Your task to perform on an android device: allow cookies in the chrome app Image 0: 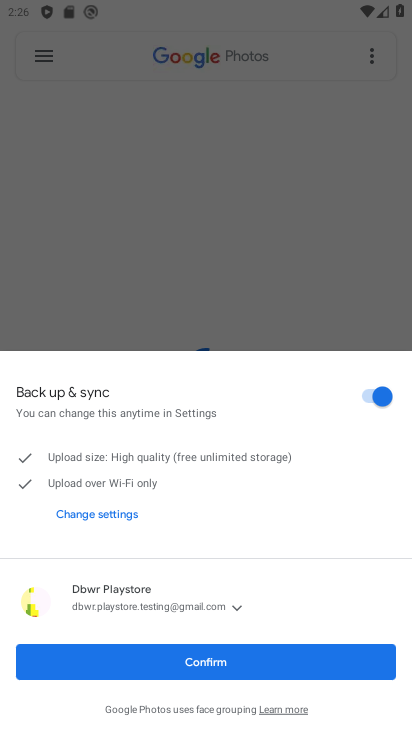
Step 0: press home button
Your task to perform on an android device: allow cookies in the chrome app Image 1: 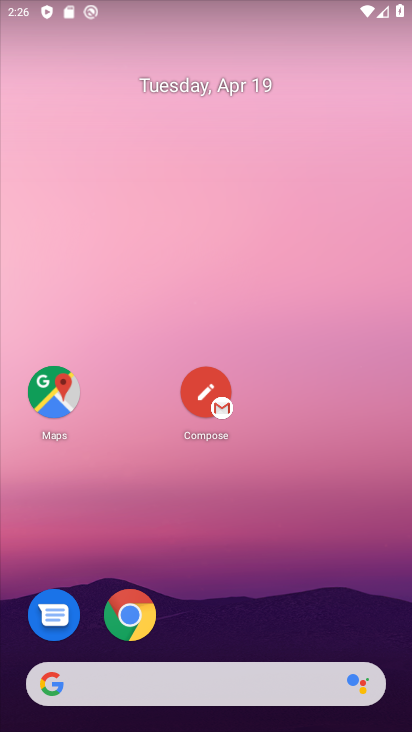
Step 1: drag from (253, 458) to (319, 71)
Your task to perform on an android device: allow cookies in the chrome app Image 2: 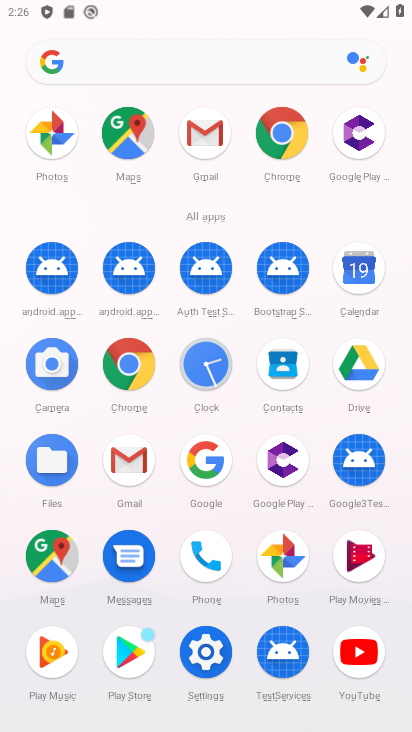
Step 2: click (133, 374)
Your task to perform on an android device: allow cookies in the chrome app Image 3: 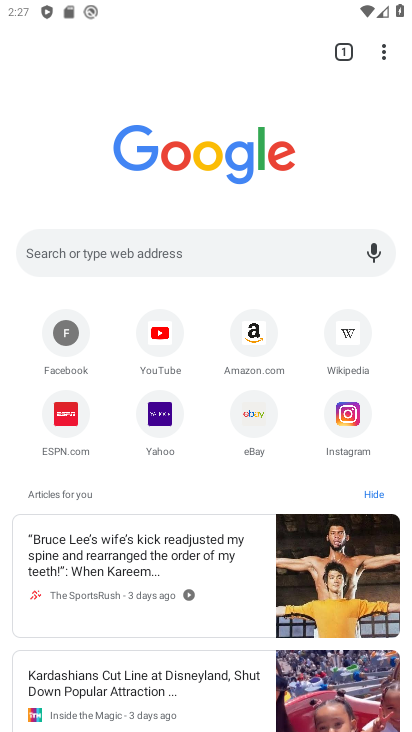
Step 3: click (376, 51)
Your task to perform on an android device: allow cookies in the chrome app Image 4: 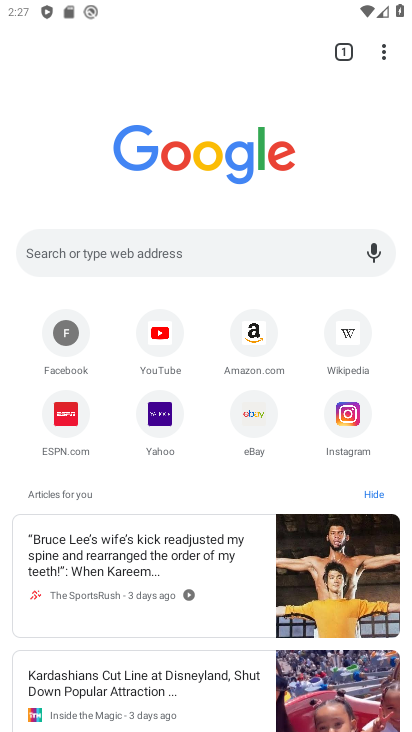
Step 4: click (370, 48)
Your task to perform on an android device: allow cookies in the chrome app Image 5: 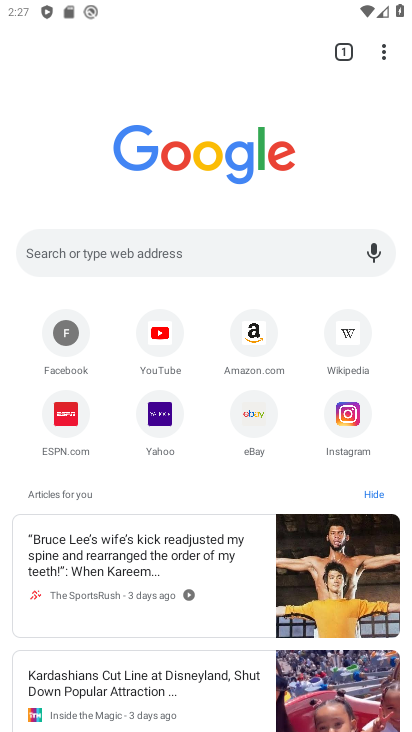
Step 5: click (378, 57)
Your task to perform on an android device: allow cookies in the chrome app Image 6: 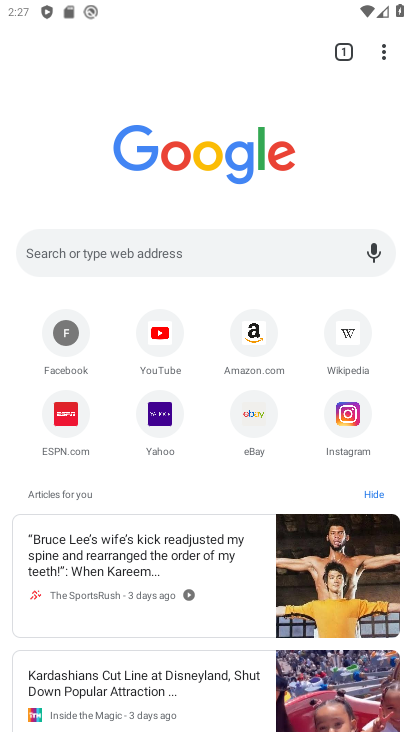
Step 6: click (370, 47)
Your task to perform on an android device: allow cookies in the chrome app Image 7: 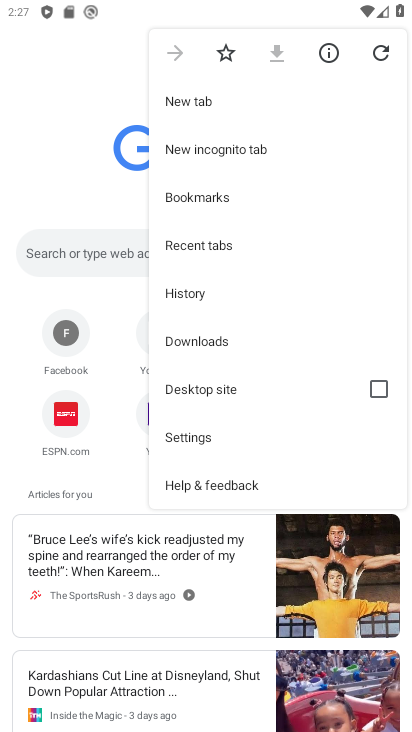
Step 7: click (216, 435)
Your task to perform on an android device: allow cookies in the chrome app Image 8: 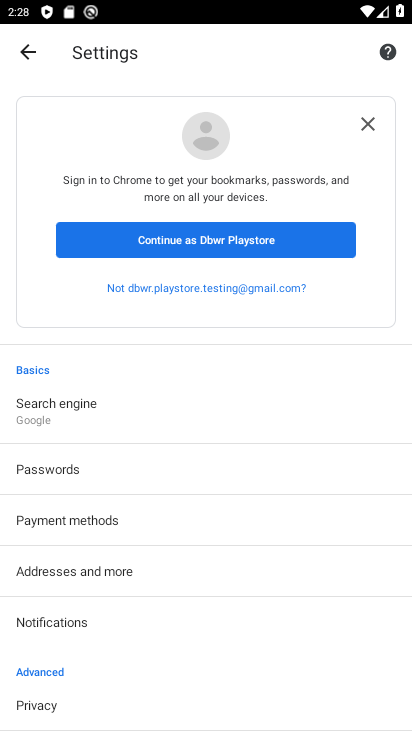
Step 8: drag from (123, 682) to (129, 313)
Your task to perform on an android device: allow cookies in the chrome app Image 9: 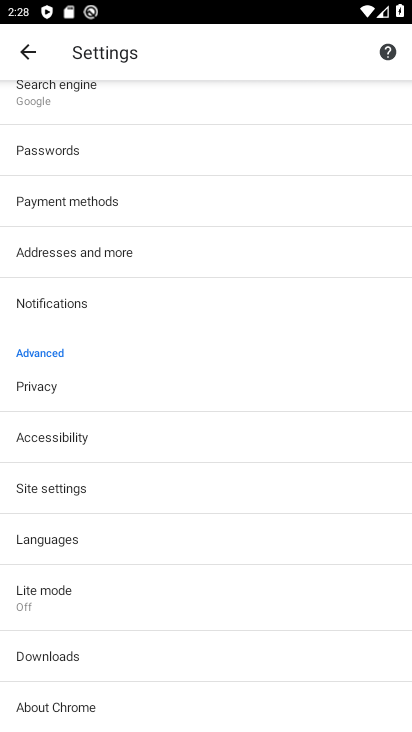
Step 9: click (96, 491)
Your task to perform on an android device: allow cookies in the chrome app Image 10: 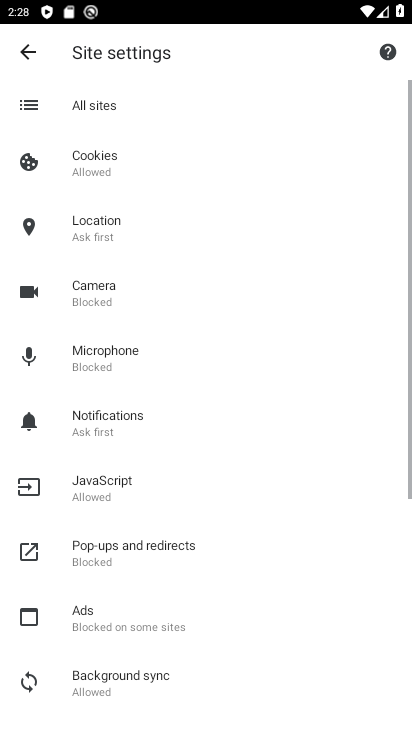
Step 10: click (121, 162)
Your task to perform on an android device: allow cookies in the chrome app Image 11: 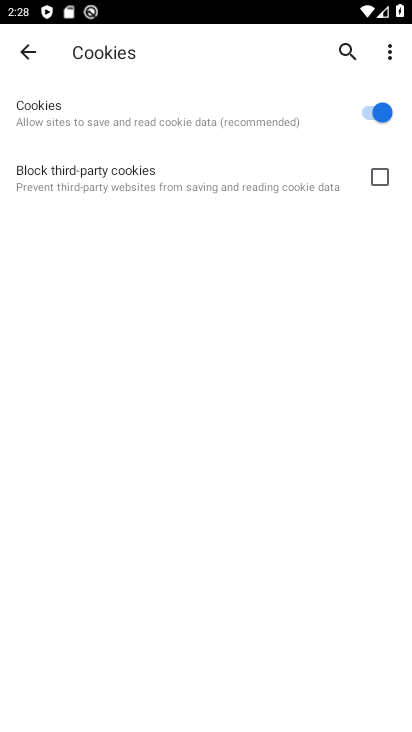
Step 11: task complete